Your task to perform on an android device: Go to eBay Image 0: 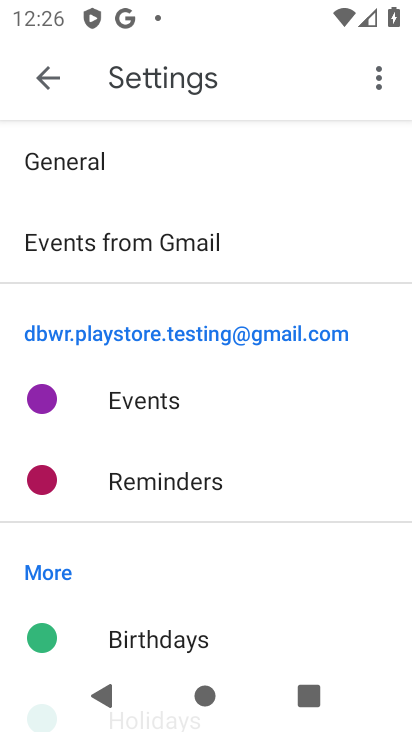
Step 0: press back button
Your task to perform on an android device: Go to eBay Image 1: 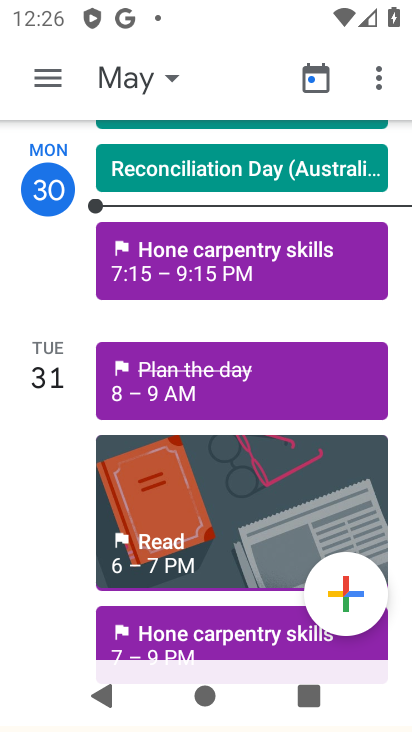
Step 1: press back button
Your task to perform on an android device: Go to eBay Image 2: 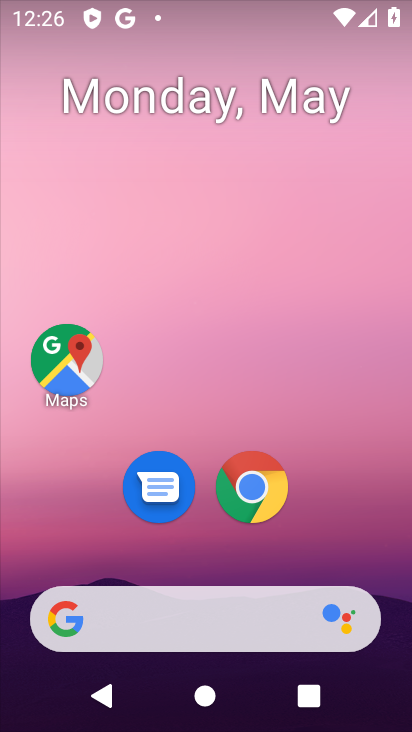
Step 2: drag from (318, 531) to (218, 107)
Your task to perform on an android device: Go to eBay Image 3: 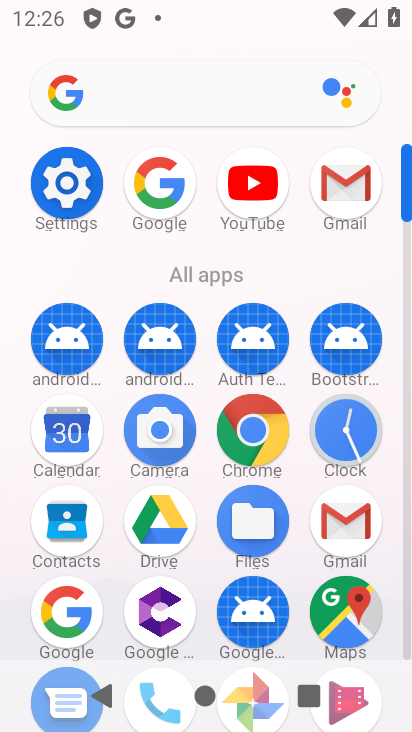
Step 3: click (151, 191)
Your task to perform on an android device: Go to eBay Image 4: 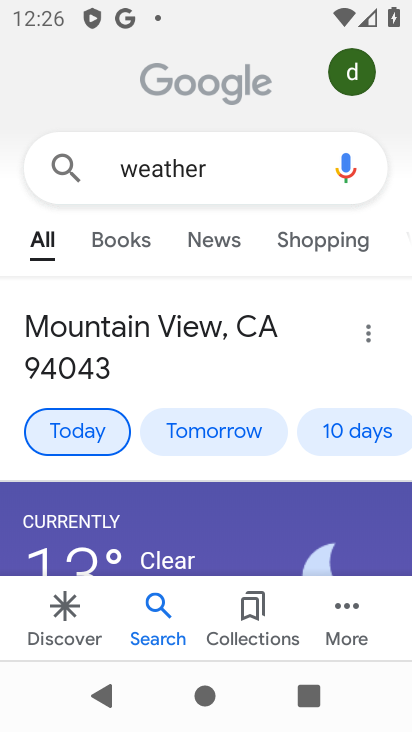
Step 4: click (229, 191)
Your task to perform on an android device: Go to eBay Image 5: 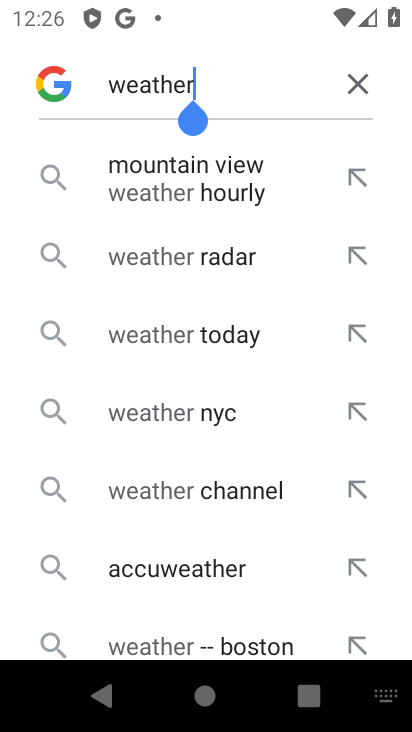
Step 5: click (365, 81)
Your task to perform on an android device: Go to eBay Image 6: 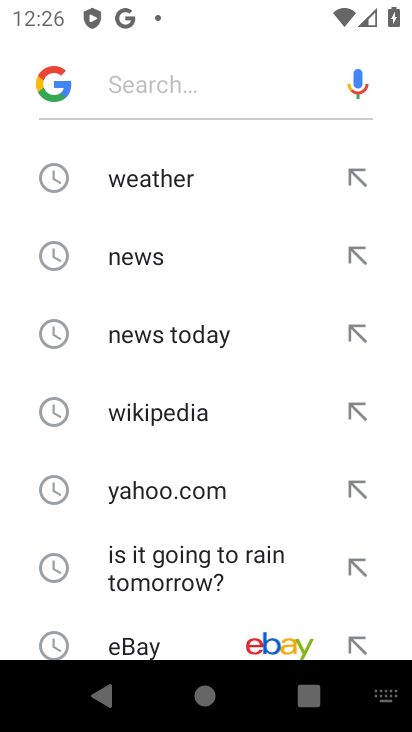
Step 6: click (140, 645)
Your task to perform on an android device: Go to eBay Image 7: 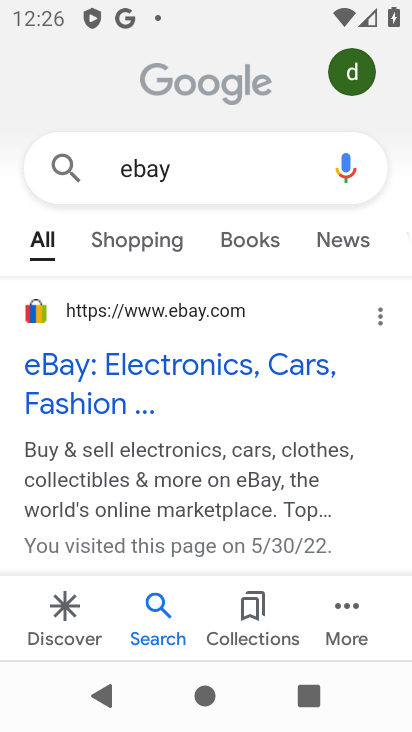
Step 7: click (190, 361)
Your task to perform on an android device: Go to eBay Image 8: 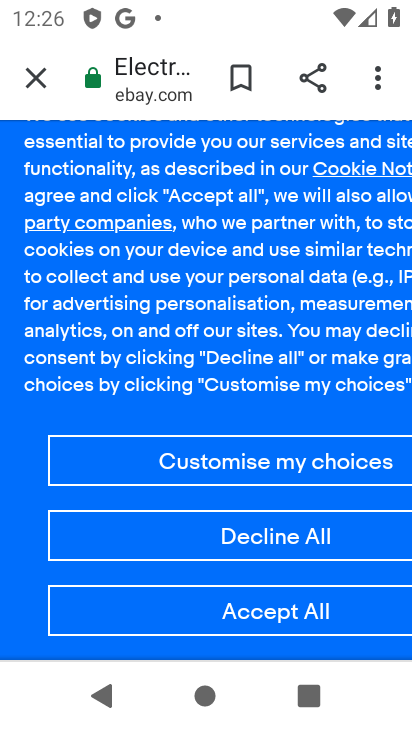
Step 8: task complete